Your task to perform on an android device: toggle notification dots Image 0: 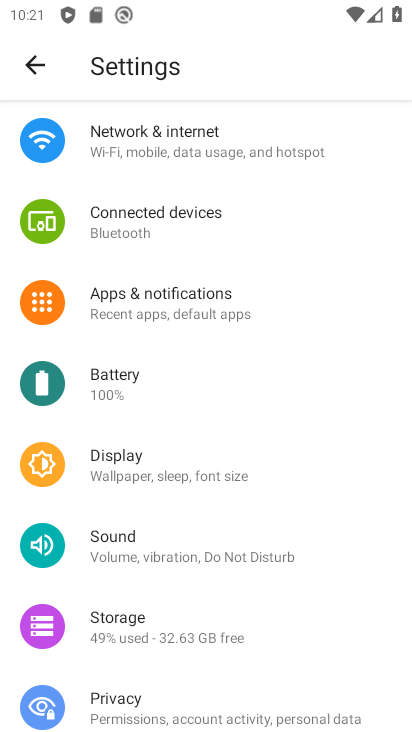
Step 0: click (197, 297)
Your task to perform on an android device: toggle notification dots Image 1: 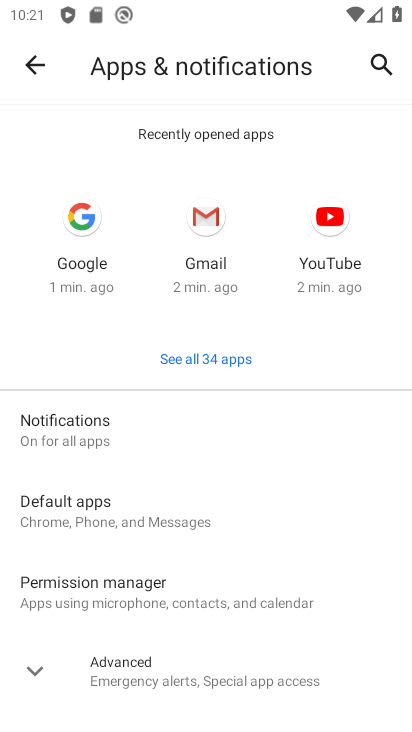
Step 1: click (80, 431)
Your task to perform on an android device: toggle notification dots Image 2: 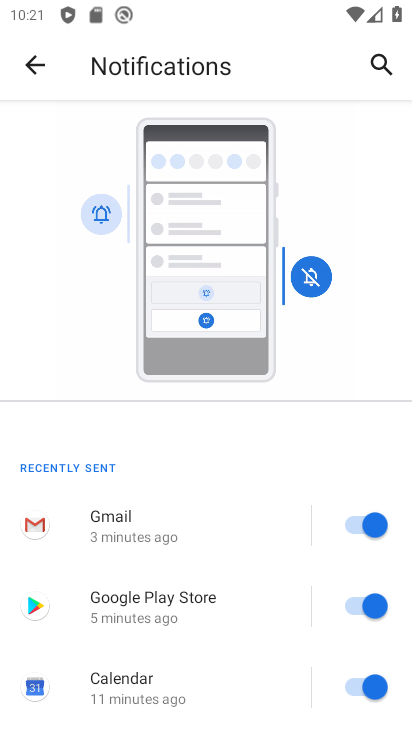
Step 2: drag from (248, 655) to (235, 349)
Your task to perform on an android device: toggle notification dots Image 3: 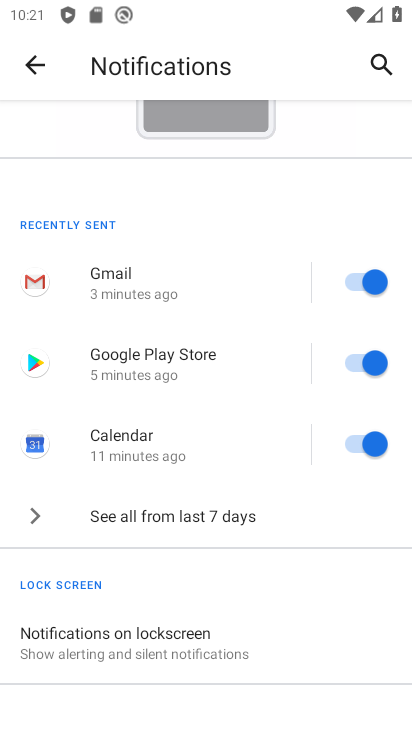
Step 3: drag from (249, 655) to (250, 310)
Your task to perform on an android device: toggle notification dots Image 4: 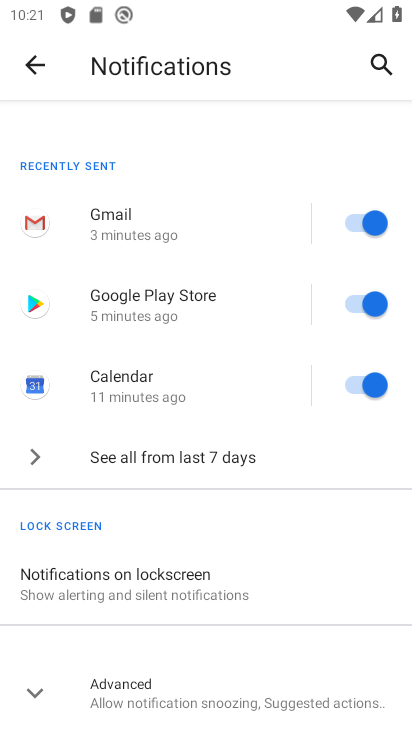
Step 4: click (255, 688)
Your task to perform on an android device: toggle notification dots Image 5: 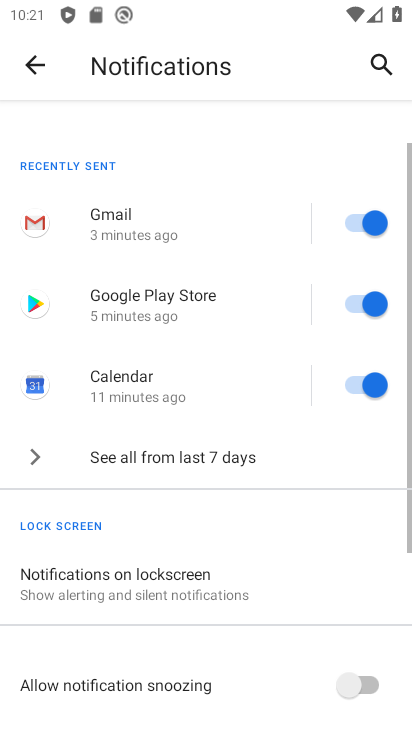
Step 5: drag from (245, 659) to (218, 371)
Your task to perform on an android device: toggle notification dots Image 6: 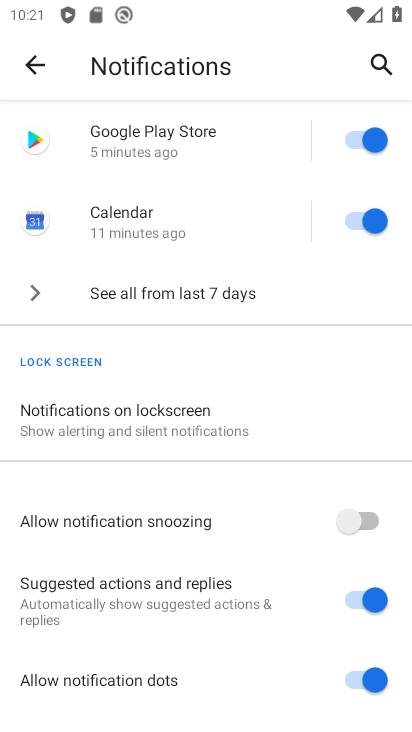
Step 6: click (362, 685)
Your task to perform on an android device: toggle notification dots Image 7: 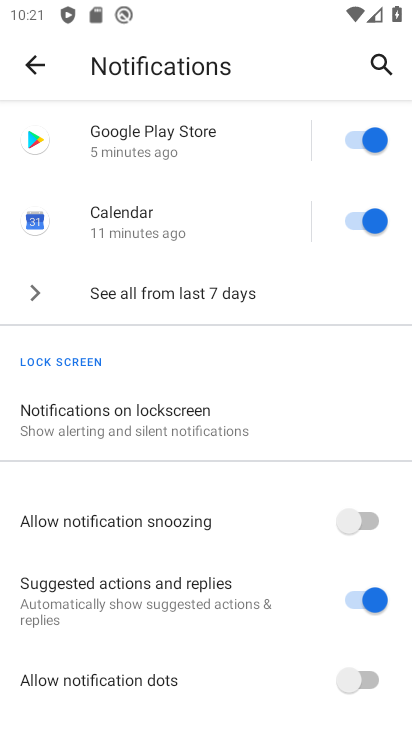
Step 7: task complete